Your task to perform on an android device: Search for "logitech g903" on ebay, select the first entry, add it to the cart, then select checkout. Image 0: 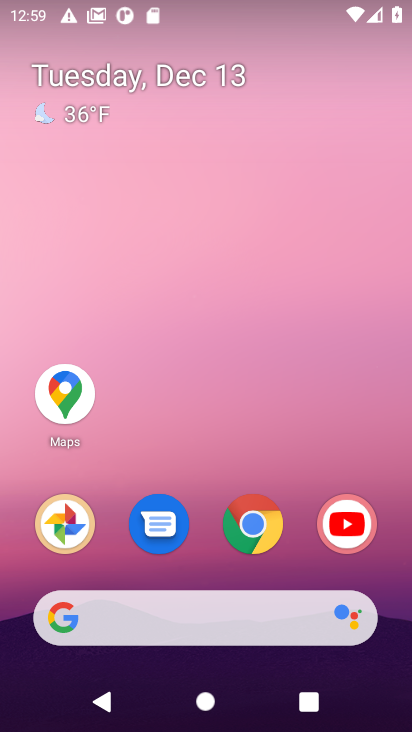
Step 0: click (259, 533)
Your task to perform on an android device: Search for "logitech g903" on ebay, select the first entry, add it to the cart, then select checkout. Image 1: 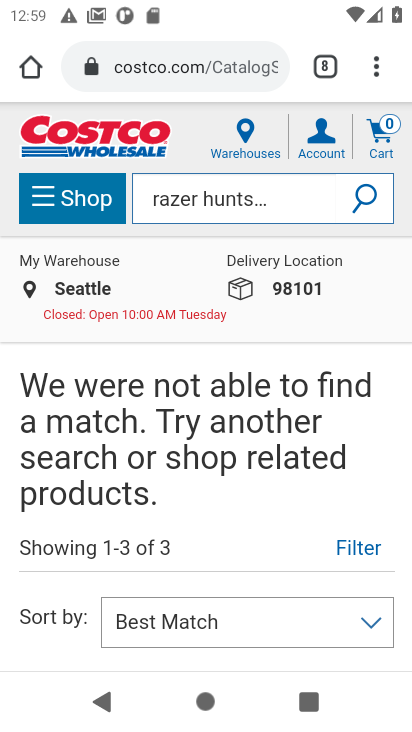
Step 1: click (190, 73)
Your task to perform on an android device: Search for "logitech g903" on ebay, select the first entry, add it to the cart, then select checkout. Image 2: 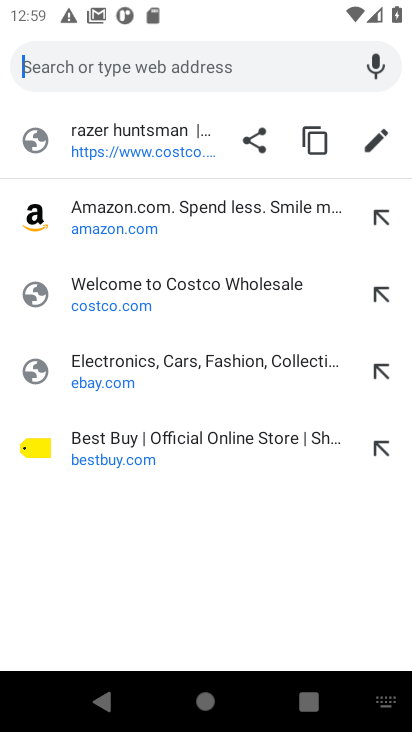
Step 2: click (93, 365)
Your task to perform on an android device: Search for "logitech g903" on ebay, select the first entry, add it to the cart, then select checkout. Image 3: 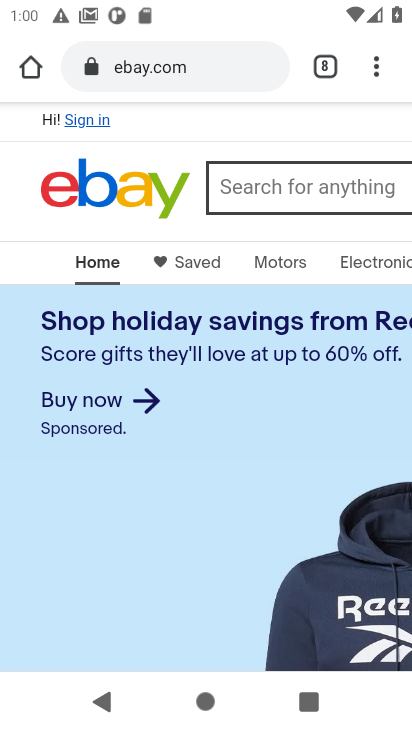
Step 3: click (254, 188)
Your task to perform on an android device: Search for "logitech g903" on ebay, select the first entry, add it to the cart, then select checkout. Image 4: 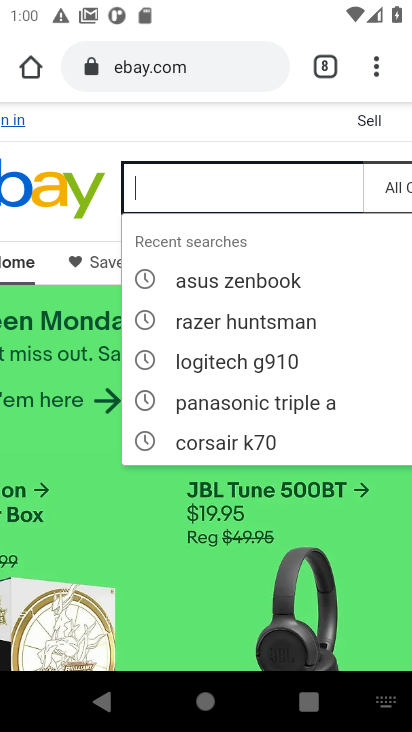
Step 4: type "logitech g903"
Your task to perform on an android device: Search for "logitech g903" on ebay, select the first entry, add it to the cart, then select checkout. Image 5: 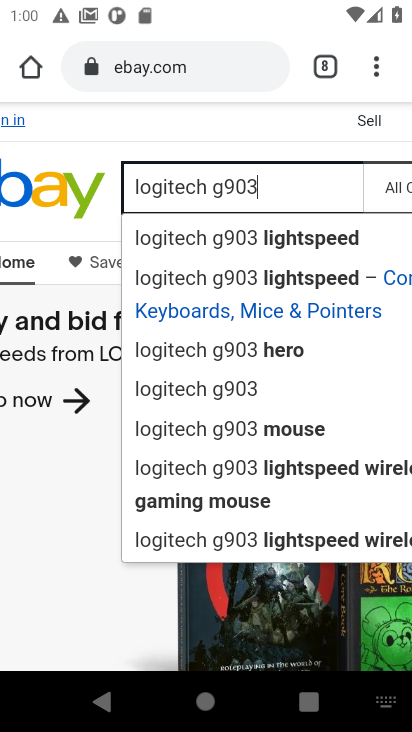
Step 5: click (226, 388)
Your task to perform on an android device: Search for "logitech g903" on ebay, select the first entry, add it to the cart, then select checkout. Image 6: 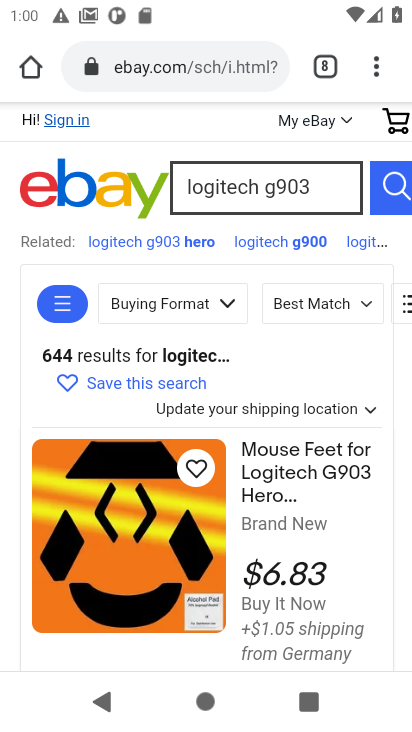
Step 6: drag from (261, 503) to (257, 380)
Your task to perform on an android device: Search for "logitech g903" on ebay, select the first entry, add it to the cart, then select checkout. Image 7: 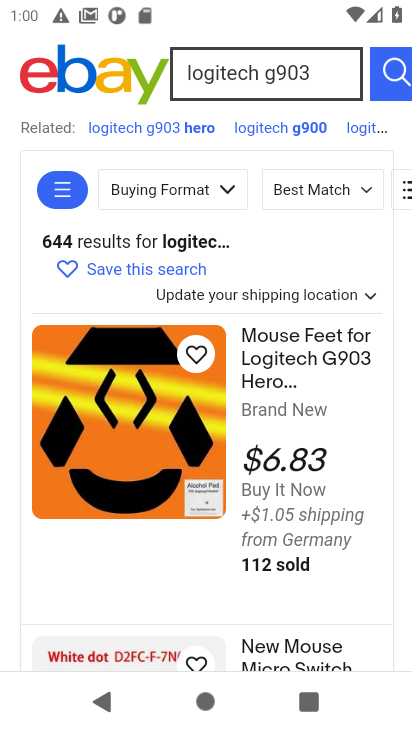
Step 7: click (263, 374)
Your task to perform on an android device: Search for "logitech g903" on ebay, select the first entry, add it to the cart, then select checkout. Image 8: 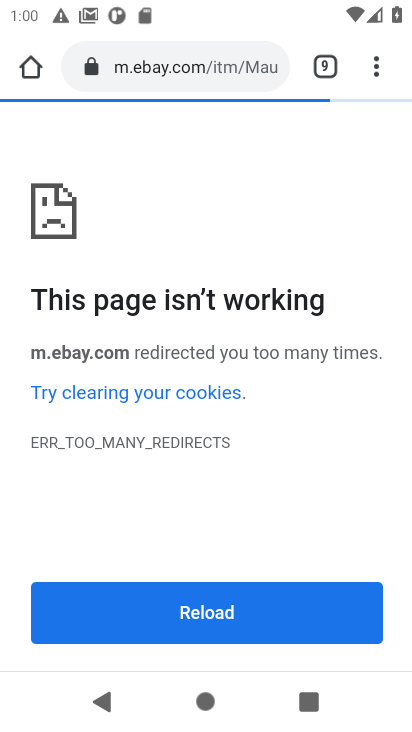
Step 8: task complete